Your task to perform on an android device: Show me popular videos on Youtube Image 0: 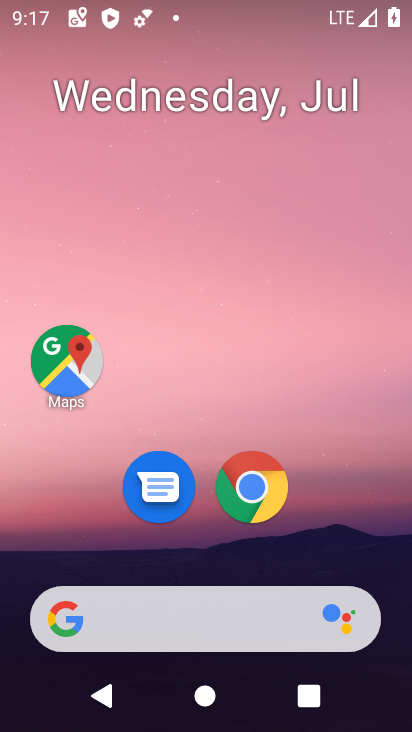
Step 0: click (181, 548)
Your task to perform on an android device: Show me popular videos on Youtube Image 1: 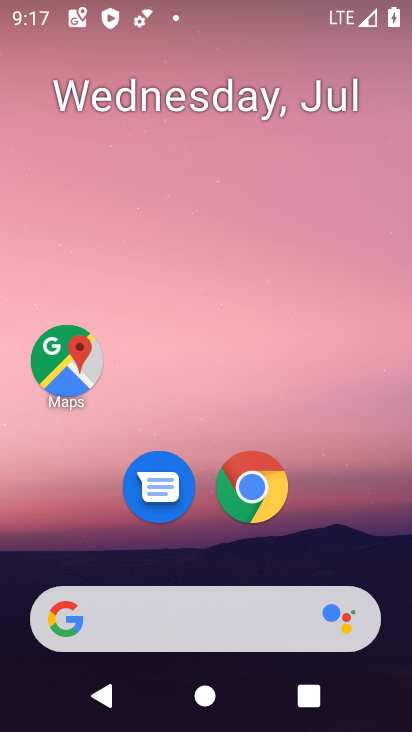
Step 1: drag from (181, 548) to (137, 184)
Your task to perform on an android device: Show me popular videos on Youtube Image 2: 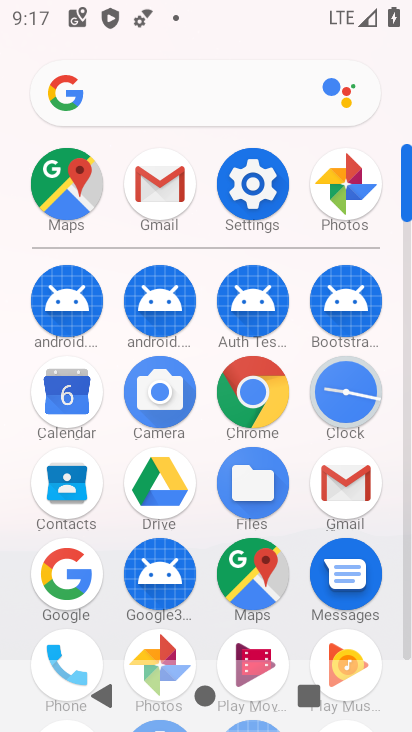
Step 2: drag from (197, 528) to (169, 129)
Your task to perform on an android device: Show me popular videos on Youtube Image 3: 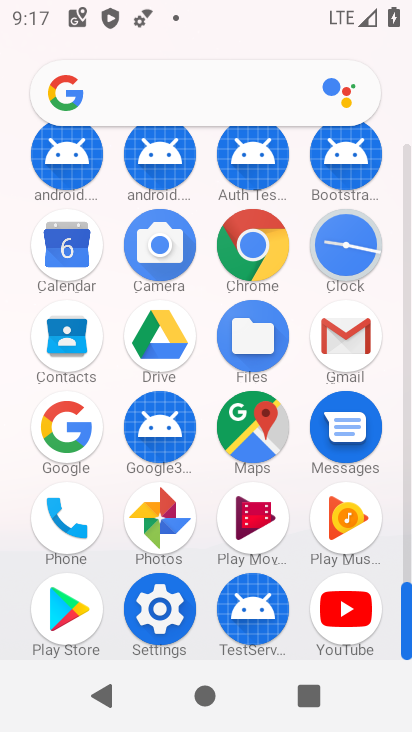
Step 3: click (325, 593)
Your task to perform on an android device: Show me popular videos on Youtube Image 4: 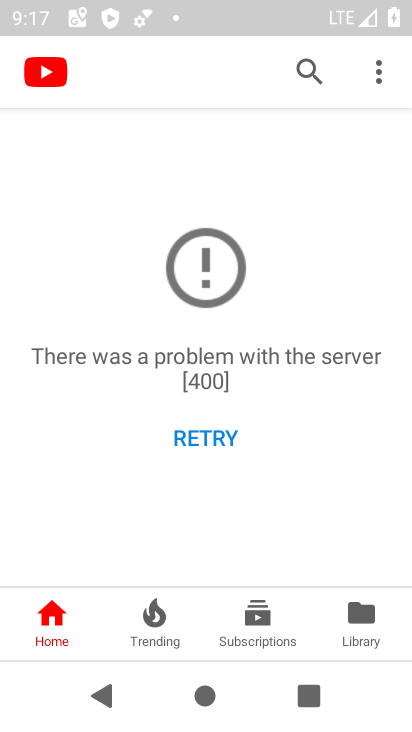
Step 4: click (194, 447)
Your task to perform on an android device: Show me popular videos on Youtube Image 5: 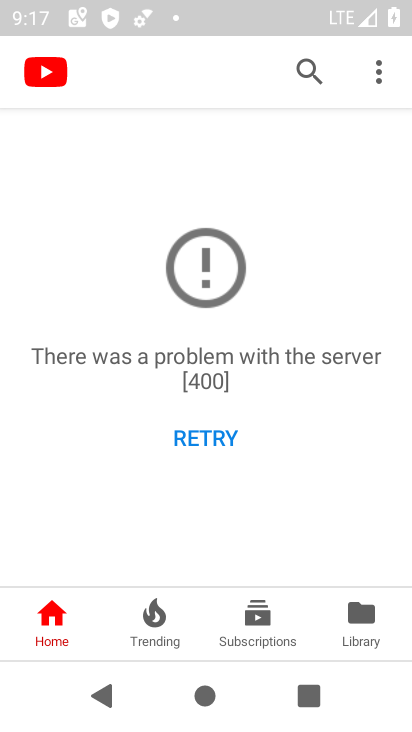
Step 5: task complete